Your task to perform on an android device: Open Yahoo.com Image 0: 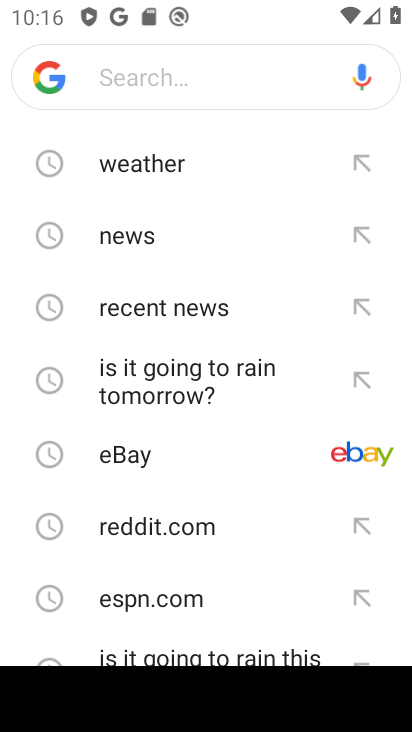
Step 0: press home button
Your task to perform on an android device: Open Yahoo.com Image 1: 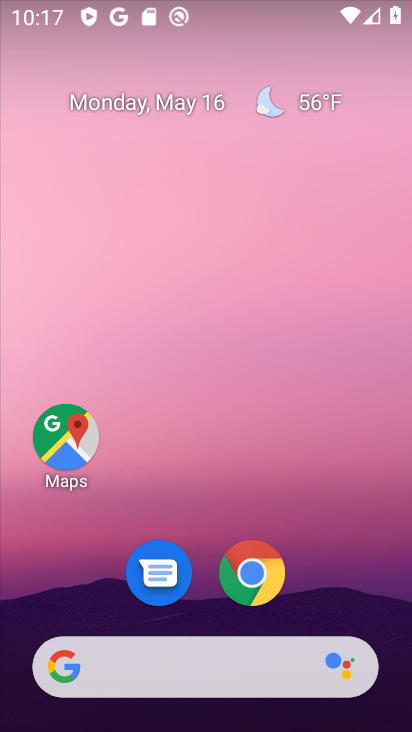
Step 1: click (268, 561)
Your task to perform on an android device: Open Yahoo.com Image 2: 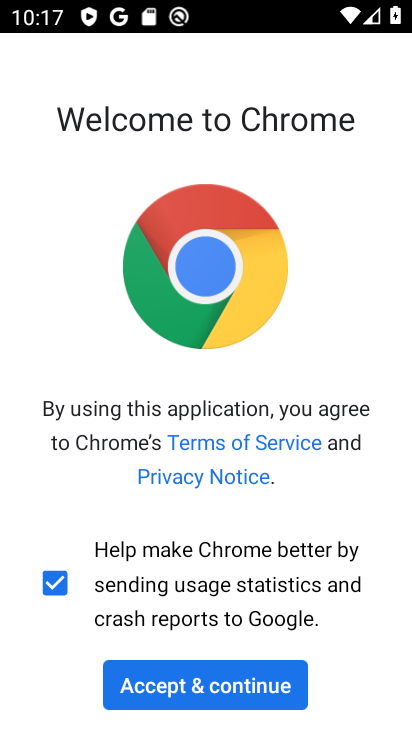
Step 2: click (210, 698)
Your task to perform on an android device: Open Yahoo.com Image 3: 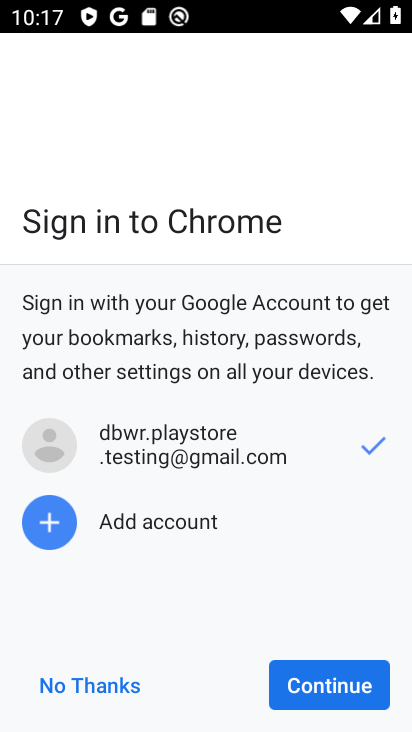
Step 3: click (310, 692)
Your task to perform on an android device: Open Yahoo.com Image 4: 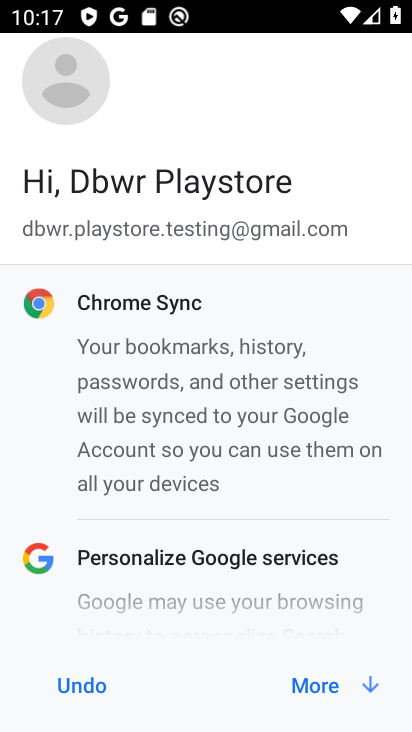
Step 4: click (315, 682)
Your task to perform on an android device: Open Yahoo.com Image 5: 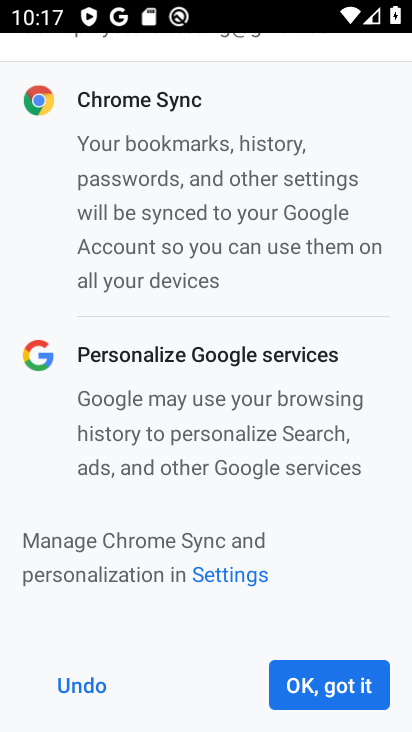
Step 5: click (315, 682)
Your task to perform on an android device: Open Yahoo.com Image 6: 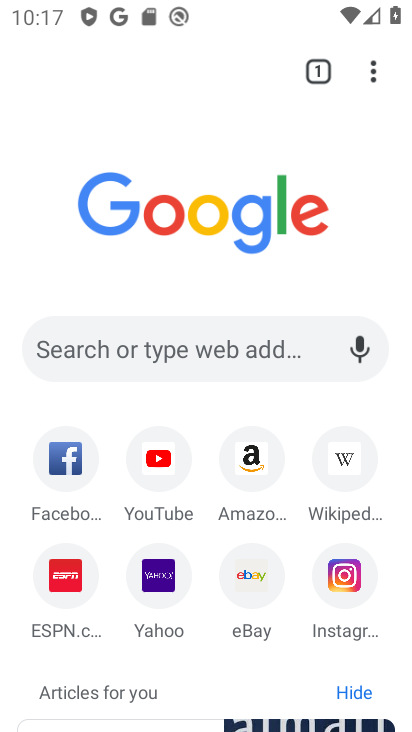
Step 6: click (168, 580)
Your task to perform on an android device: Open Yahoo.com Image 7: 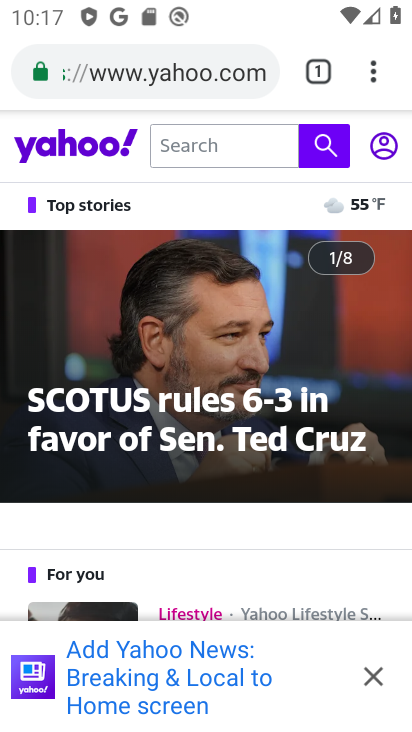
Step 7: task complete